Your task to perform on an android device: Do I have any events today? Image 0: 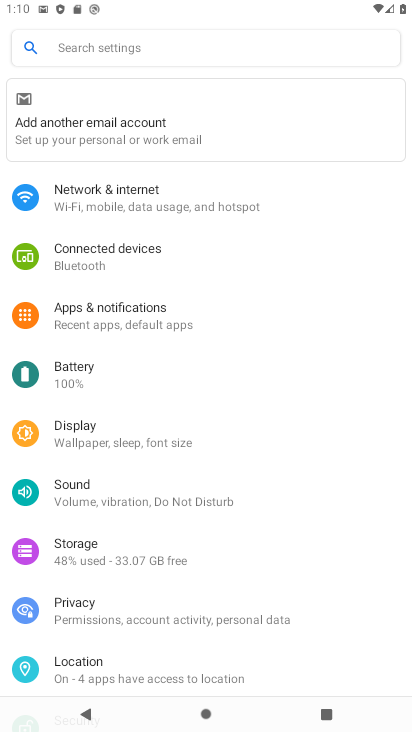
Step 0: press home button
Your task to perform on an android device: Do I have any events today? Image 1: 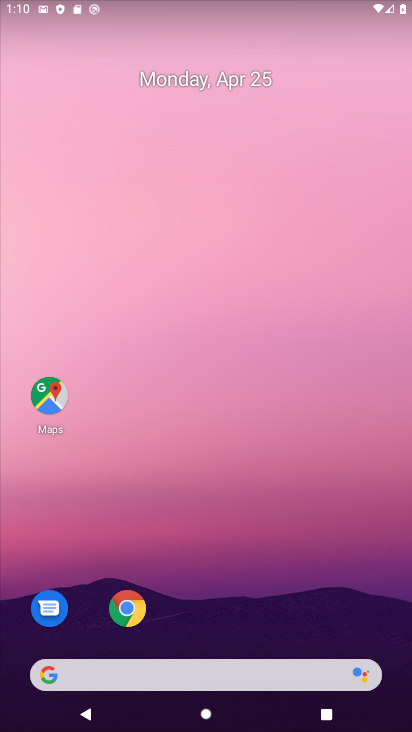
Step 1: drag from (235, 627) to (249, 110)
Your task to perform on an android device: Do I have any events today? Image 2: 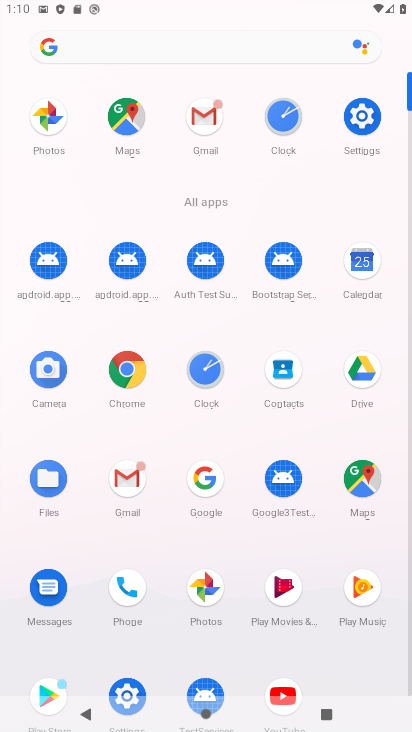
Step 2: click (371, 263)
Your task to perform on an android device: Do I have any events today? Image 3: 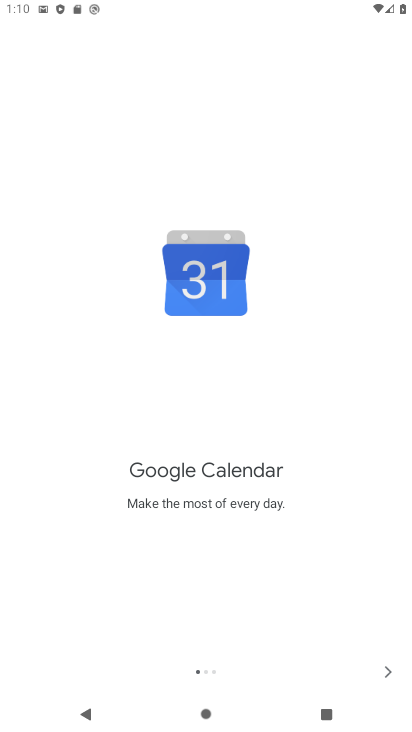
Step 3: click (389, 669)
Your task to perform on an android device: Do I have any events today? Image 4: 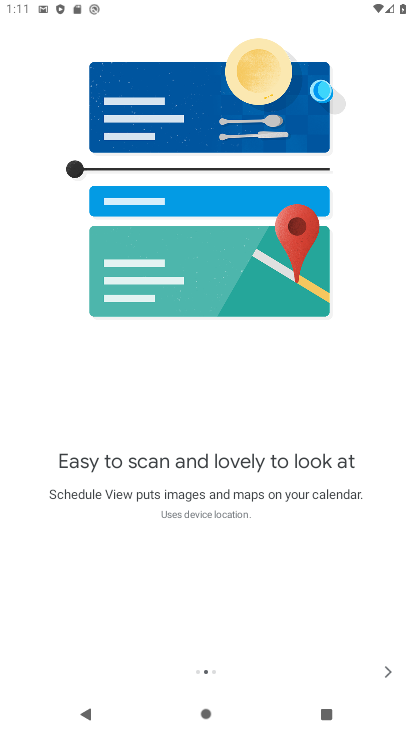
Step 4: click (388, 669)
Your task to perform on an android device: Do I have any events today? Image 5: 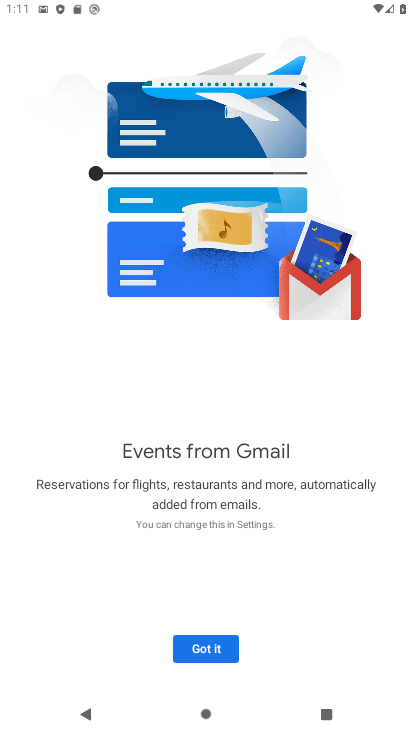
Step 5: click (388, 669)
Your task to perform on an android device: Do I have any events today? Image 6: 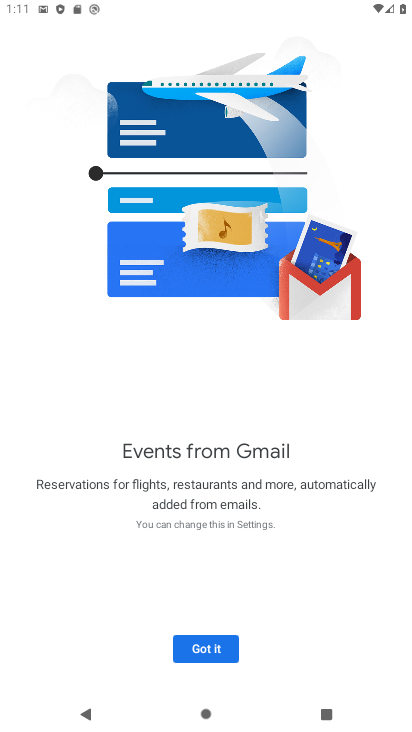
Step 6: click (218, 648)
Your task to perform on an android device: Do I have any events today? Image 7: 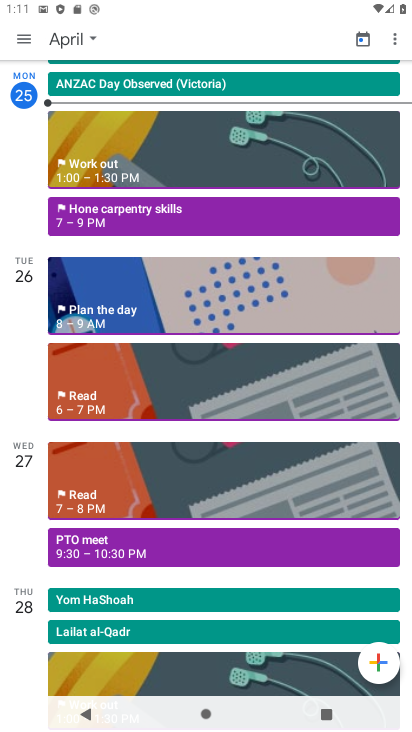
Step 7: click (16, 34)
Your task to perform on an android device: Do I have any events today? Image 8: 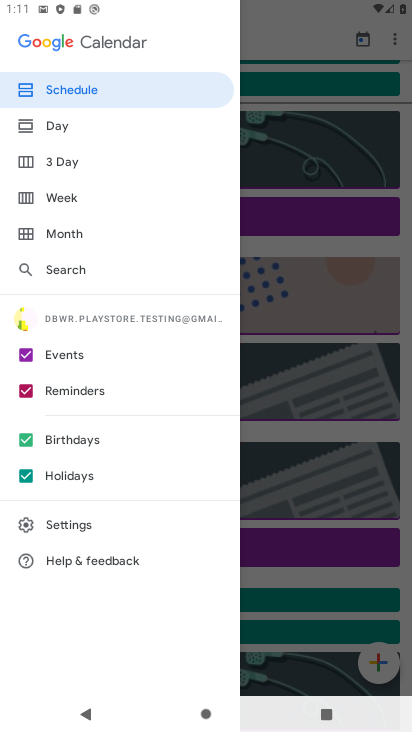
Step 8: click (26, 477)
Your task to perform on an android device: Do I have any events today? Image 9: 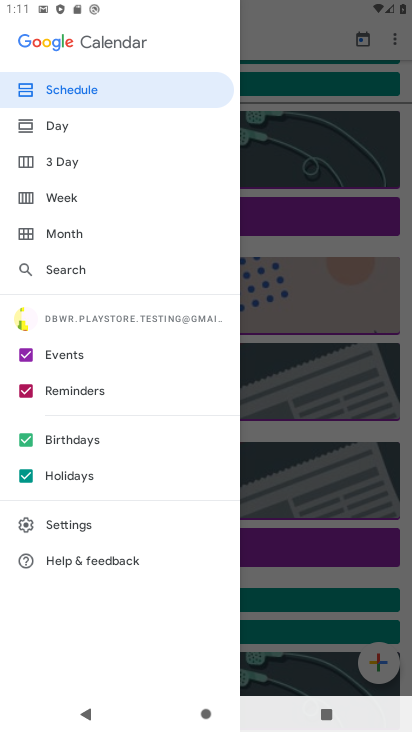
Step 9: click (26, 439)
Your task to perform on an android device: Do I have any events today? Image 10: 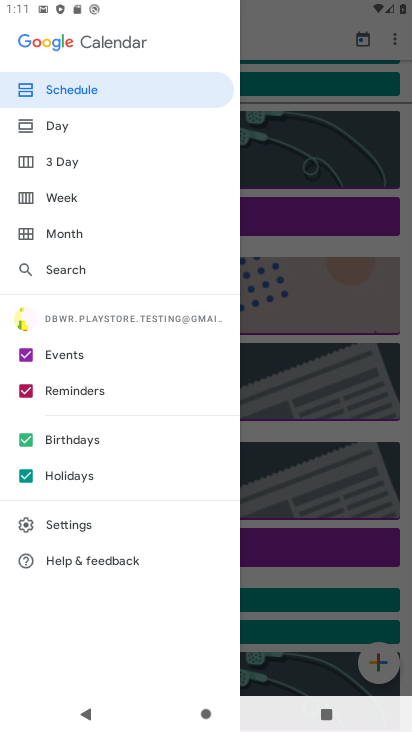
Step 10: click (24, 387)
Your task to perform on an android device: Do I have any events today? Image 11: 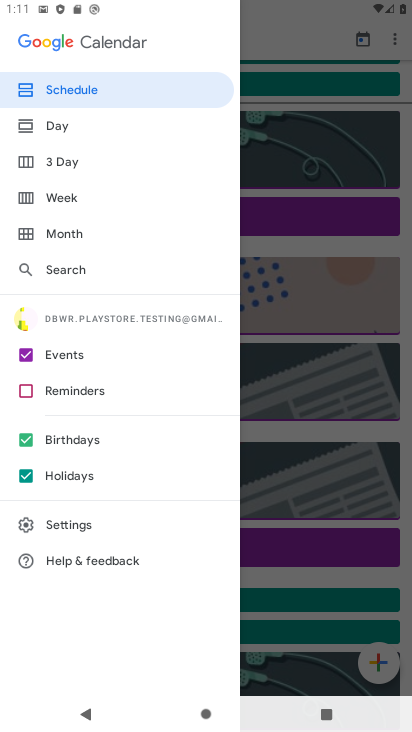
Step 11: click (24, 477)
Your task to perform on an android device: Do I have any events today? Image 12: 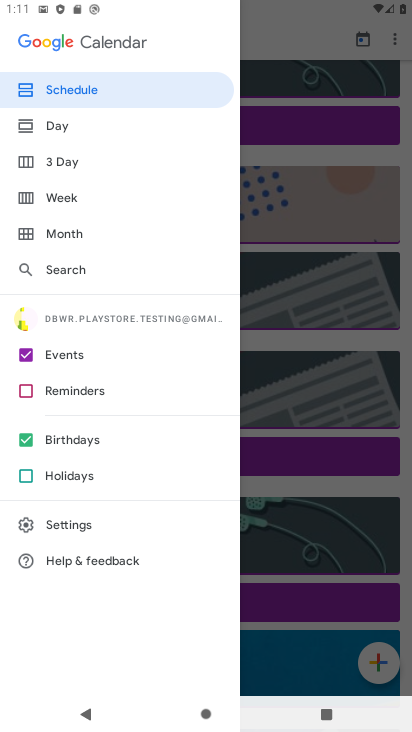
Step 12: click (23, 437)
Your task to perform on an android device: Do I have any events today? Image 13: 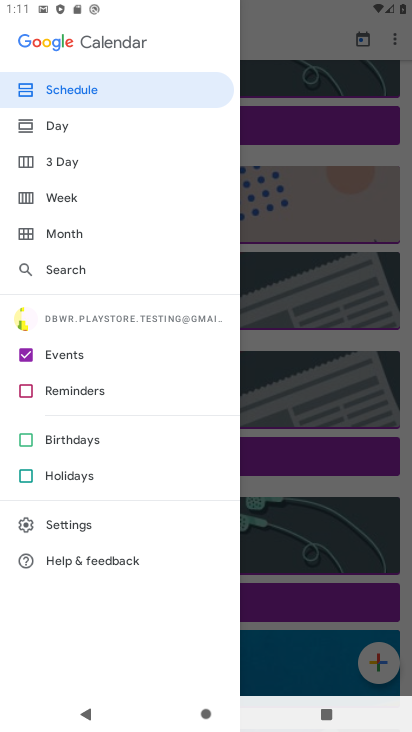
Step 13: click (111, 95)
Your task to perform on an android device: Do I have any events today? Image 14: 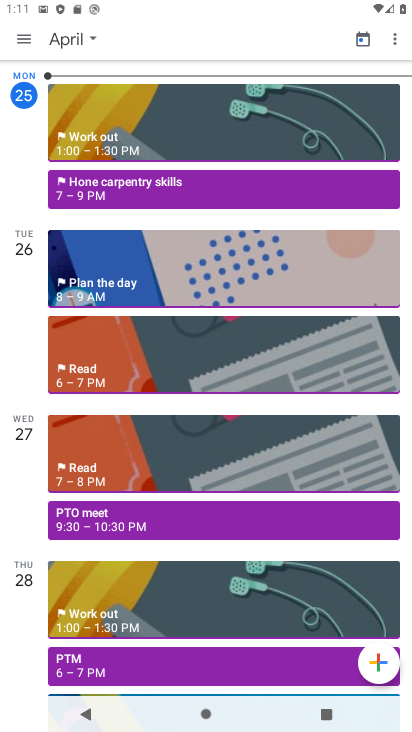
Step 14: task complete